Your task to perform on an android device: Go to Android settings Image 0: 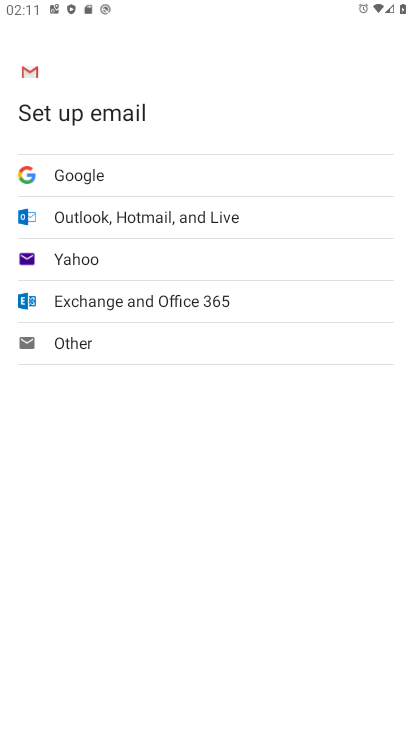
Step 0: press home button
Your task to perform on an android device: Go to Android settings Image 1: 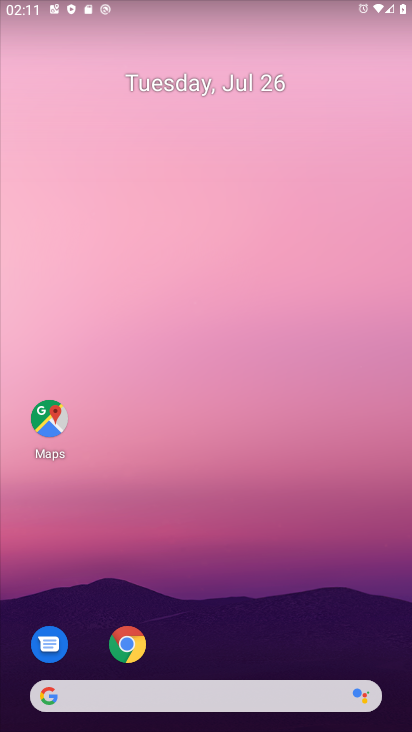
Step 1: drag from (281, 611) to (277, 29)
Your task to perform on an android device: Go to Android settings Image 2: 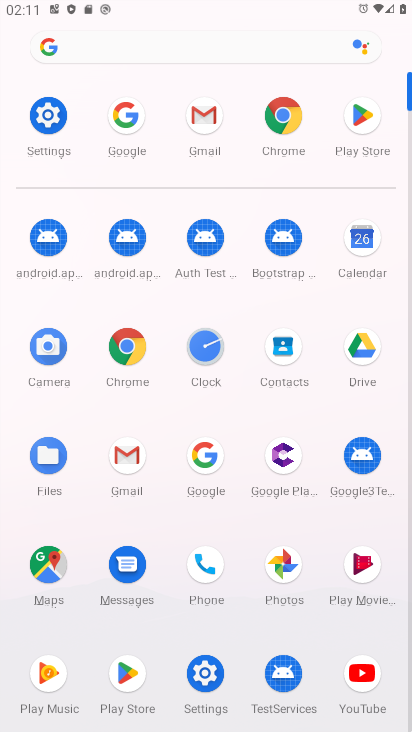
Step 2: click (53, 122)
Your task to perform on an android device: Go to Android settings Image 3: 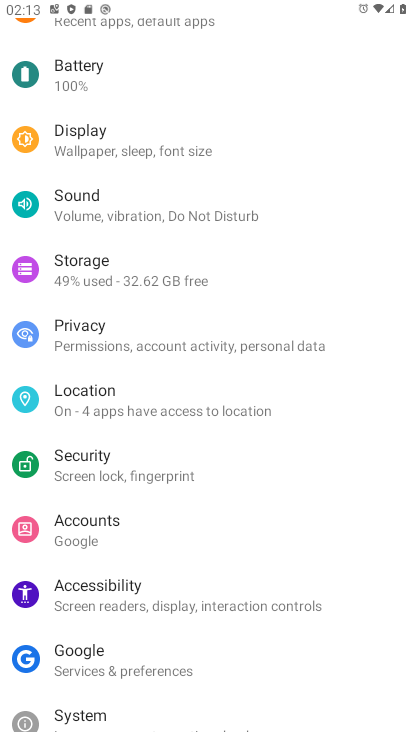
Step 3: task complete